Your task to perform on an android device: snooze an email in the gmail app Image 0: 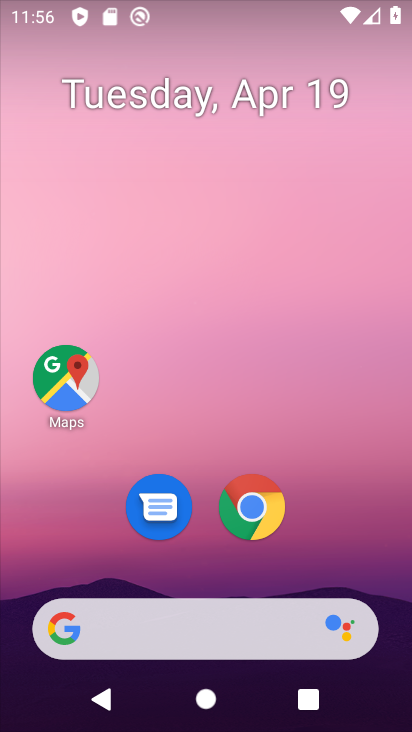
Step 0: drag from (369, 535) to (378, 134)
Your task to perform on an android device: snooze an email in the gmail app Image 1: 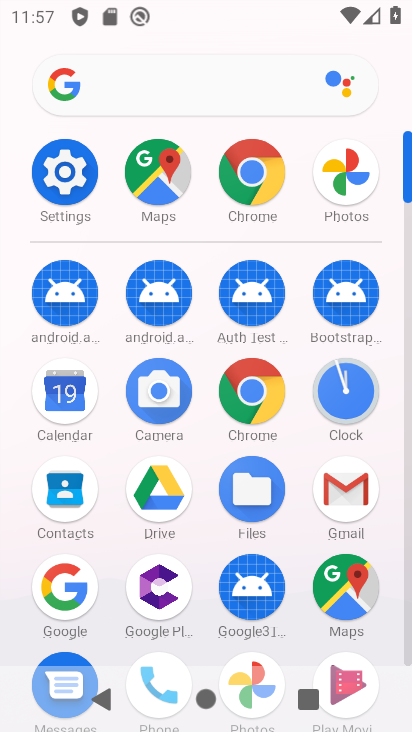
Step 1: click (352, 494)
Your task to perform on an android device: snooze an email in the gmail app Image 2: 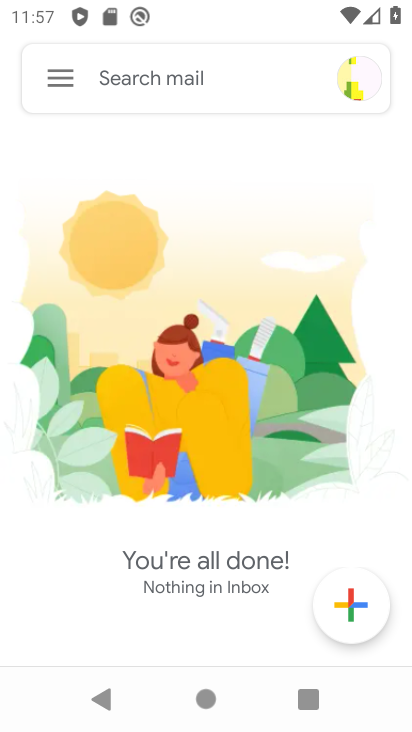
Step 2: click (60, 96)
Your task to perform on an android device: snooze an email in the gmail app Image 3: 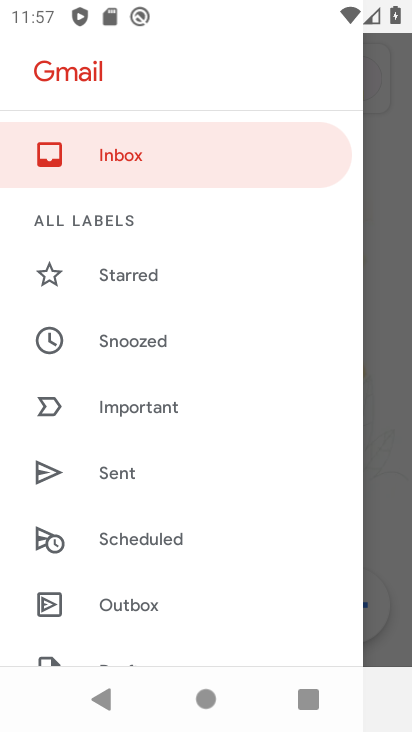
Step 3: drag from (190, 574) to (192, 349)
Your task to perform on an android device: snooze an email in the gmail app Image 4: 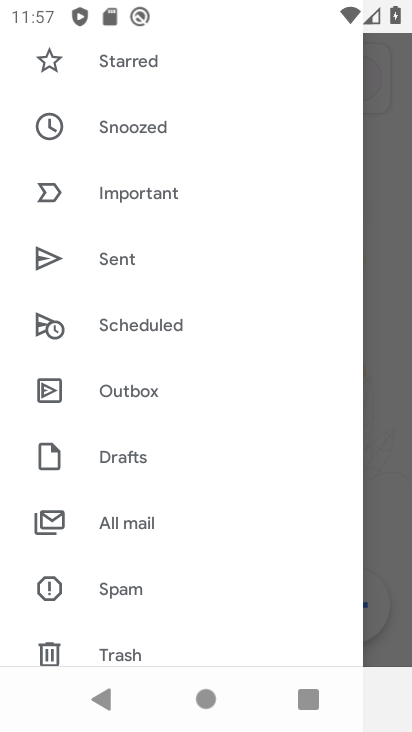
Step 4: click (120, 532)
Your task to perform on an android device: snooze an email in the gmail app Image 5: 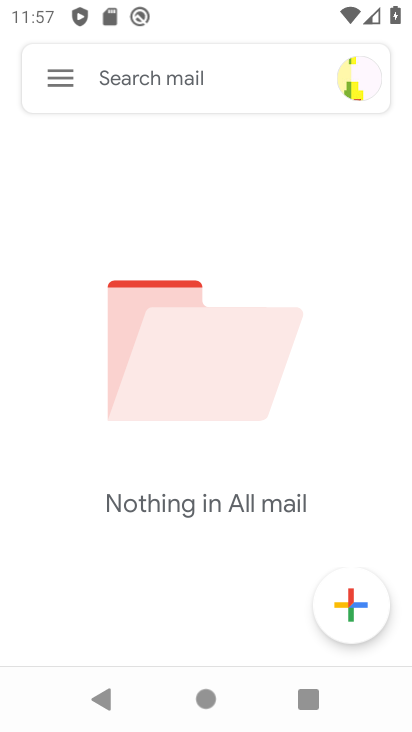
Step 5: task complete